Your task to perform on an android device: turn on translation in the chrome app Image 0: 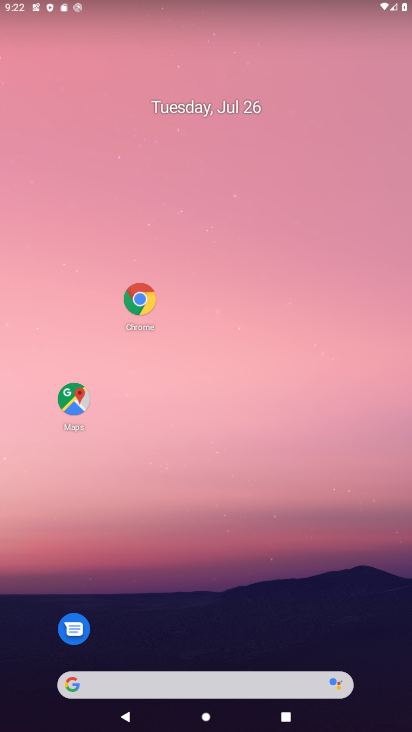
Step 0: click (149, 200)
Your task to perform on an android device: turn on translation in the chrome app Image 1: 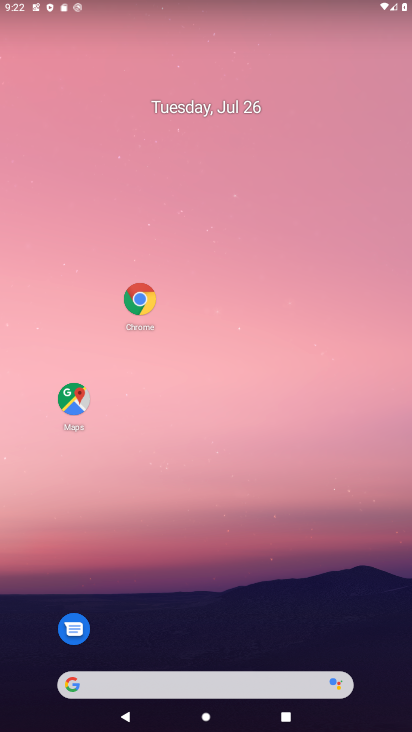
Step 1: click (176, 219)
Your task to perform on an android device: turn on translation in the chrome app Image 2: 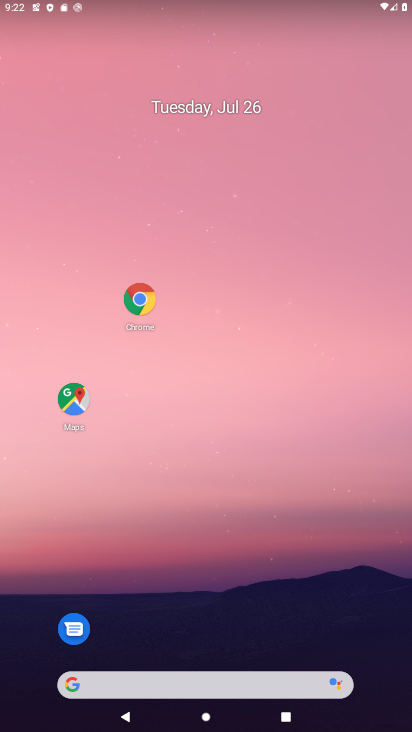
Step 2: drag from (182, 400) to (121, 44)
Your task to perform on an android device: turn on translation in the chrome app Image 3: 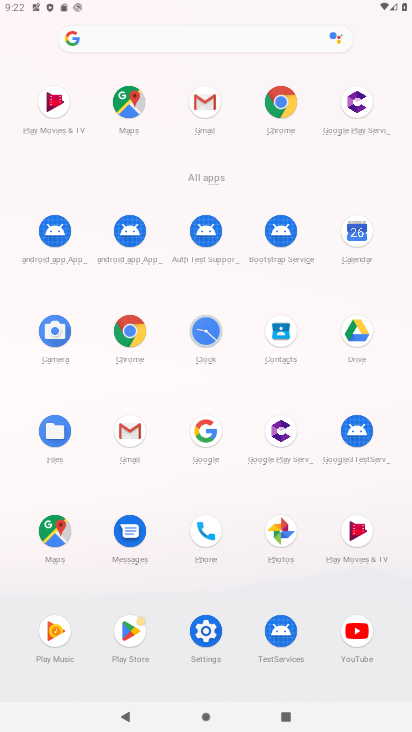
Step 3: click (284, 107)
Your task to perform on an android device: turn on translation in the chrome app Image 4: 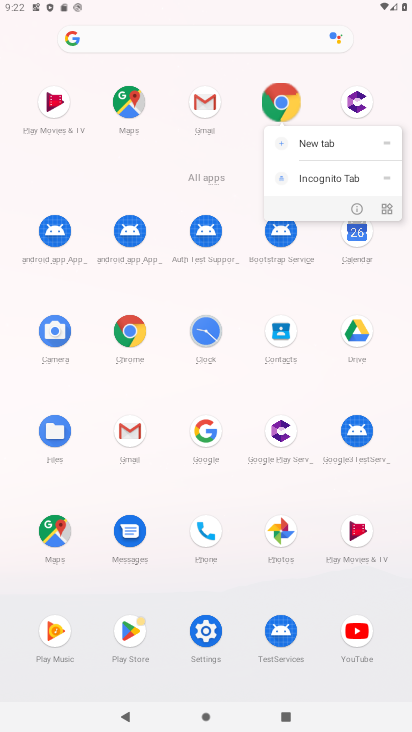
Step 4: click (284, 107)
Your task to perform on an android device: turn on translation in the chrome app Image 5: 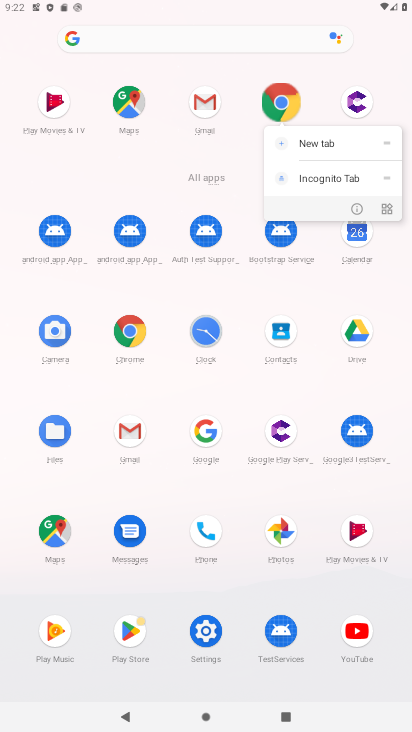
Step 5: click (284, 106)
Your task to perform on an android device: turn on translation in the chrome app Image 6: 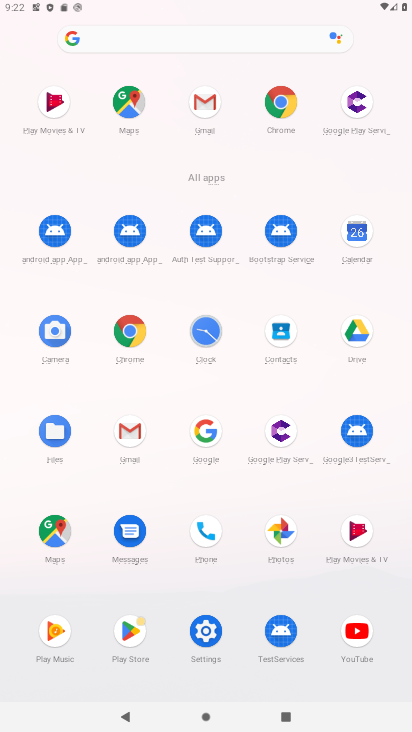
Step 6: click (288, 102)
Your task to perform on an android device: turn on translation in the chrome app Image 7: 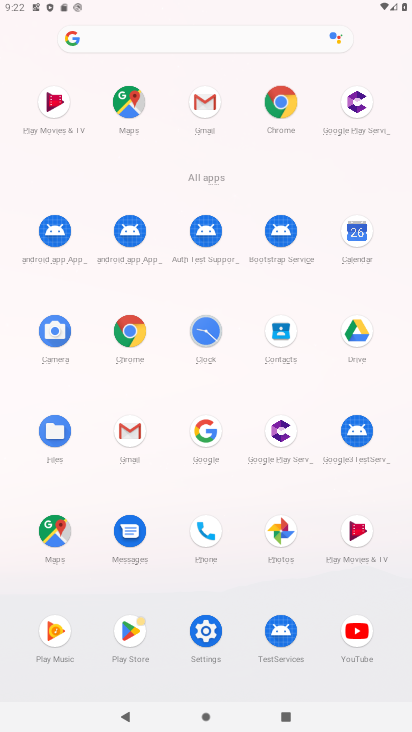
Step 7: click (286, 109)
Your task to perform on an android device: turn on translation in the chrome app Image 8: 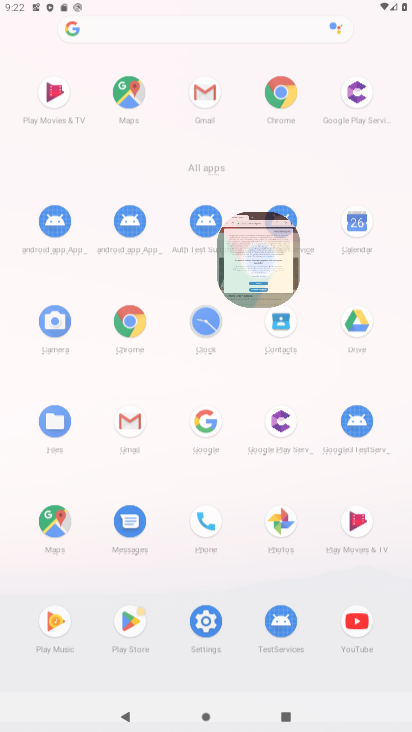
Step 8: click (286, 109)
Your task to perform on an android device: turn on translation in the chrome app Image 9: 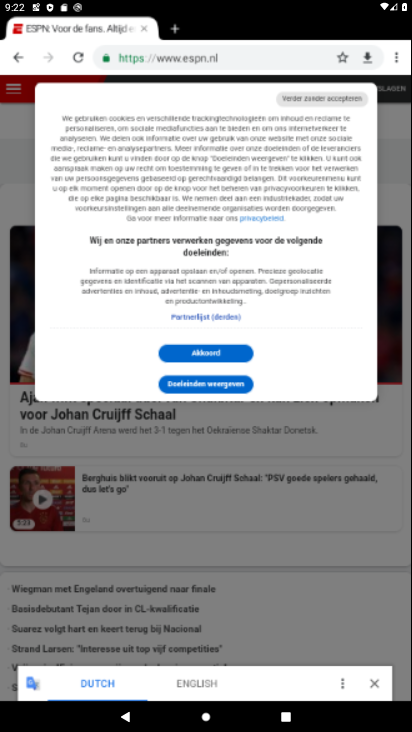
Step 9: click (288, 108)
Your task to perform on an android device: turn on translation in the chrome app Image 10: 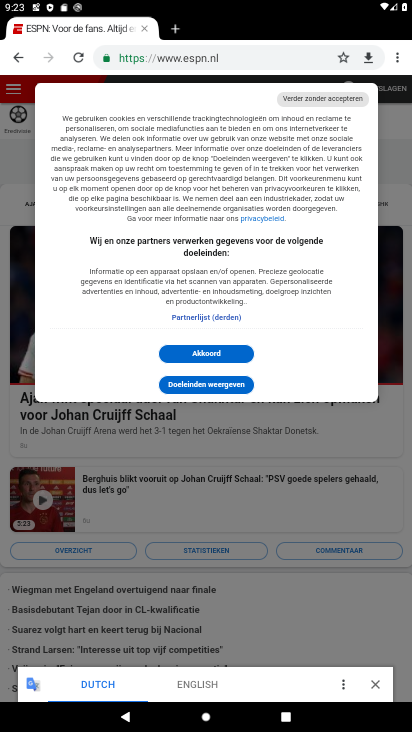
Step 10: click (249, 555)
Your task to perform on an android device: turn on translation in the chrome app Image 11: 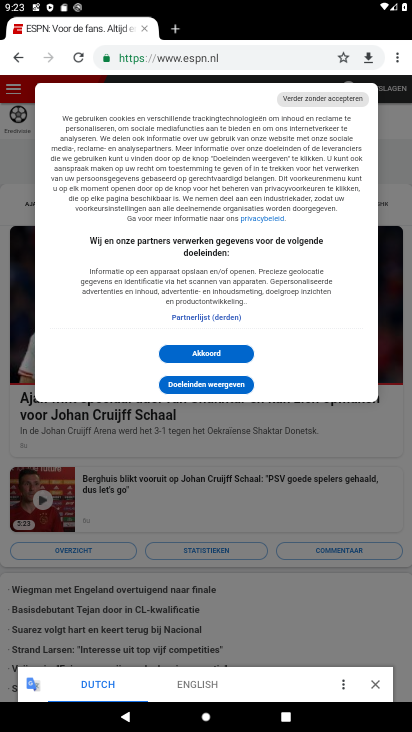
Step 11: click (246, 523)
Your task to perform on an android device: turn on translation in the chrome app Image 12: 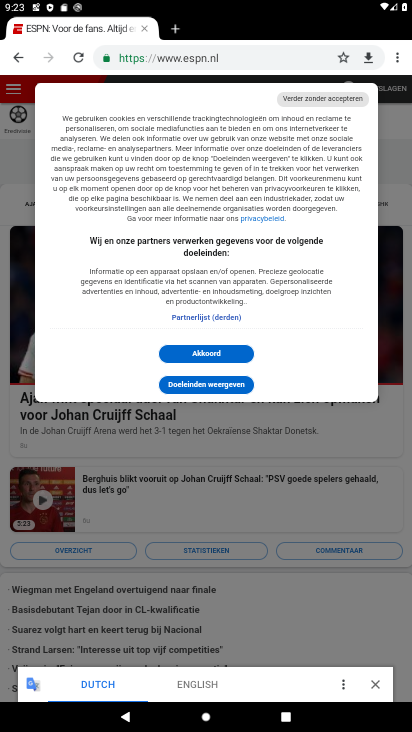
Step 12: click (250, 465)
Your task to perform on an android device: turn on translation in the chrome app Image 13: 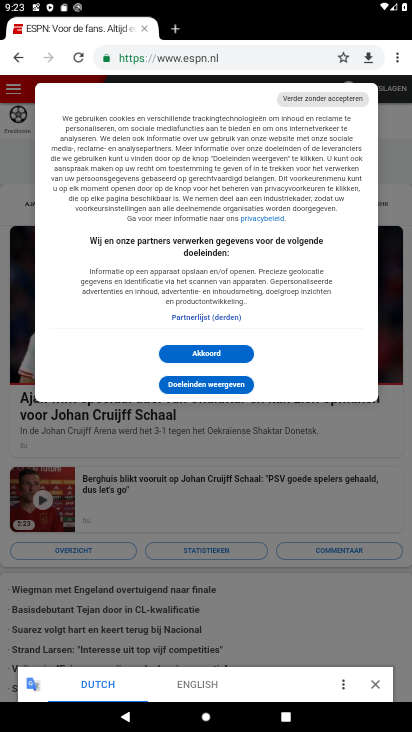
Step 13: click (24, 371)
Your task to perform on an android device: turn on translation in the chrome app Image 14: 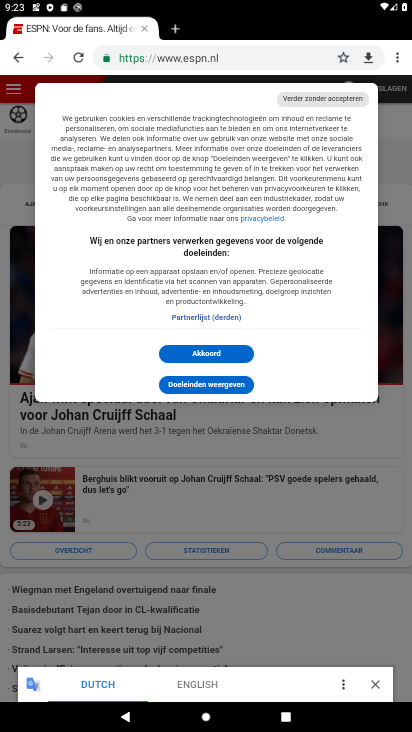
Step 14: click (29, 345)
Your task to perform on an android device: turn on translation in the chrome app Image 15: 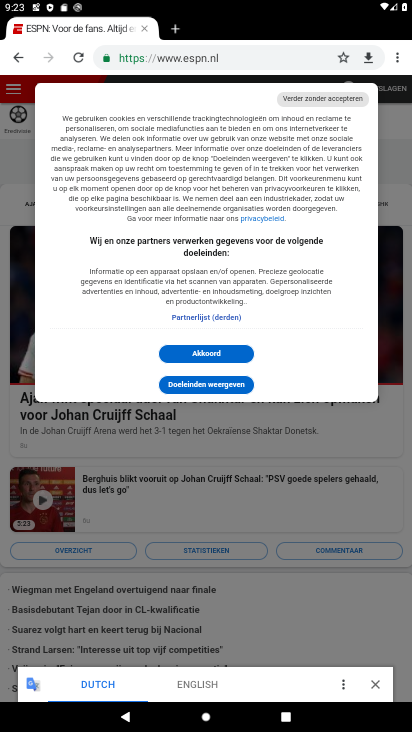
Step 15: click (20, 249)
Your task to perform on an android device: turn on translation in the chrome app Image 16: 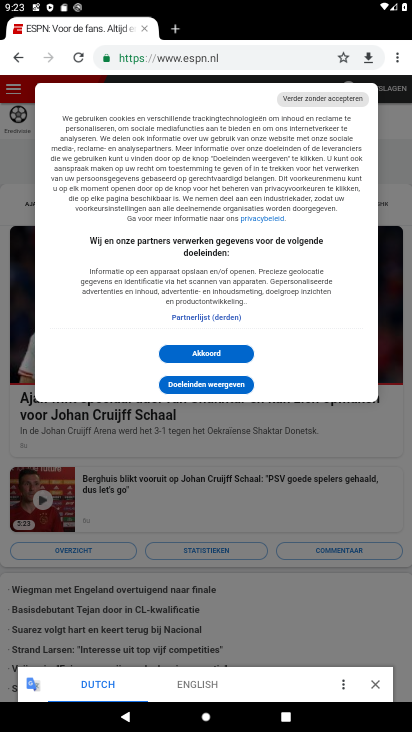
Step 16: click (27, 109)
Your task to perform on an android device: turn on translation in the chrome app Image 17: 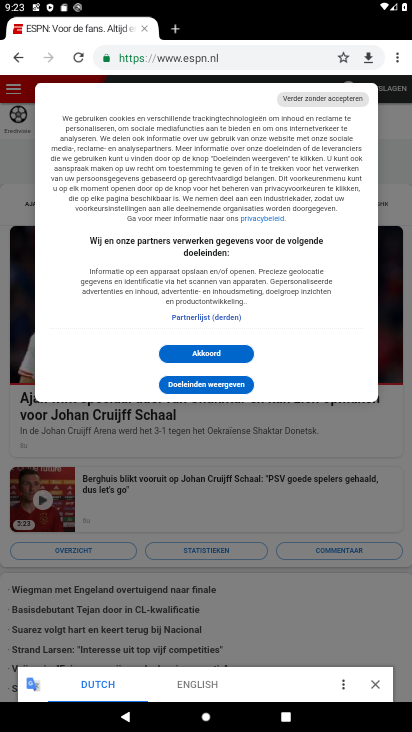
Step 17: press back button
Your task to perform on an android device: turn on translation in the chrome app Image 18: 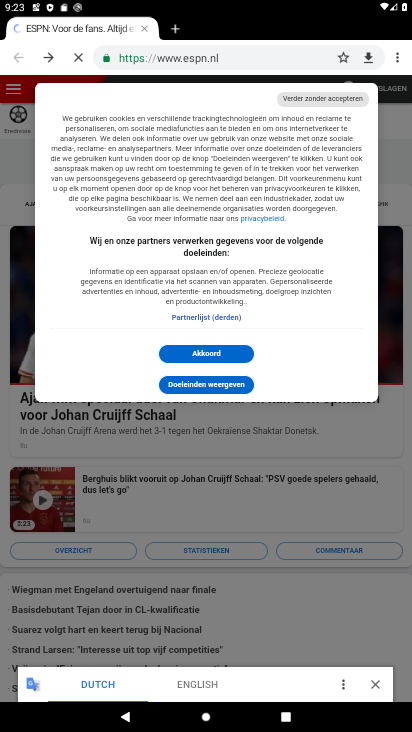
Step 18: press back button
Your task to perform on an android device: turn on translation in the chrome app Image 19: 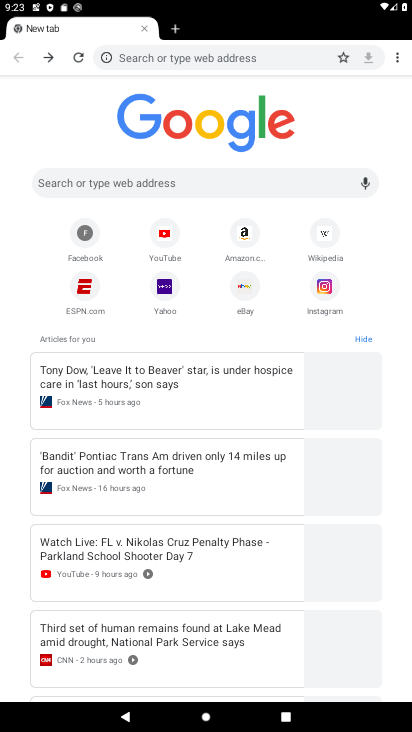
Step 19: press back button
Your task to perform on an android device: turn on translation in the chrome app Image 20: 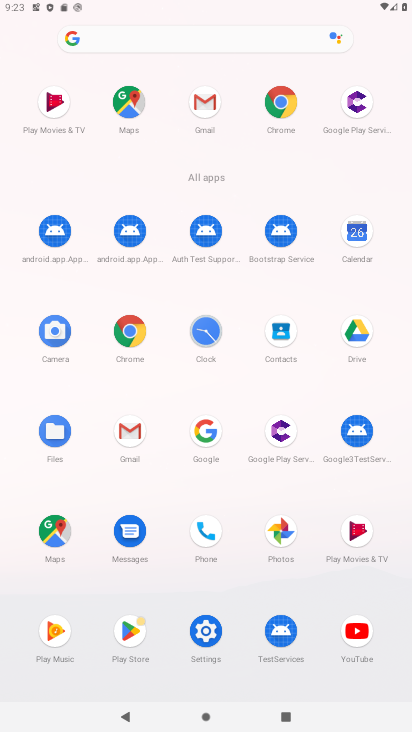
Step 20: drag from (353, 251) to (360, 476)
Your task to perform on an android device: turn on translation in the chrome app Image 21: 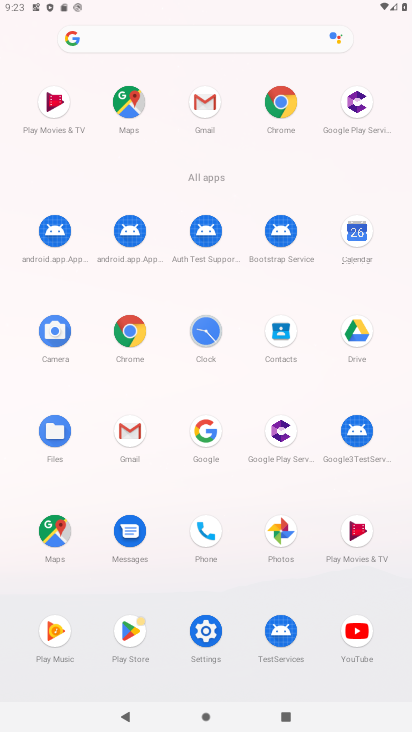
Step 21: click (278, 102)
Your task to perform on an android device: turn on translation in the chrome app Image 22: 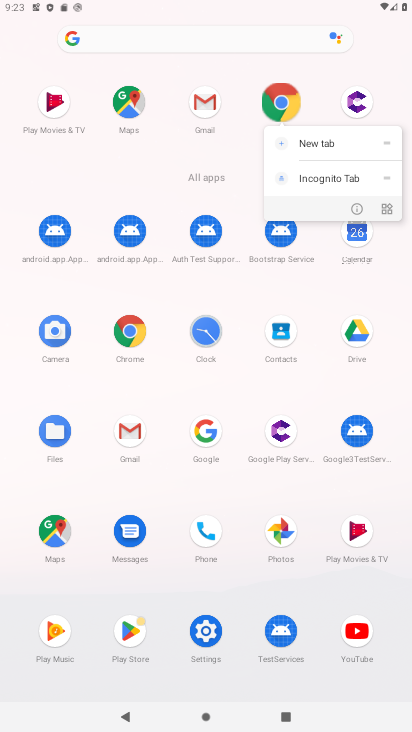
Step 22: click (280, 108)
Your task to perform on an android device: turn on translation in the chrome app Image 23: 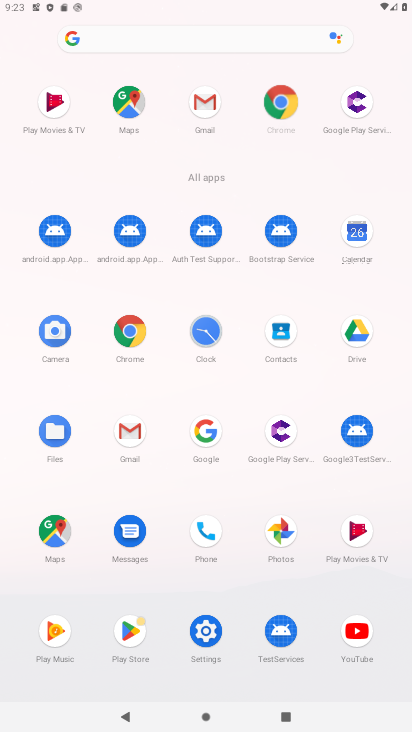
Step 23: click (286, 110)
Your task to perform on an android device: turn on translation in the chrome app Image 24: 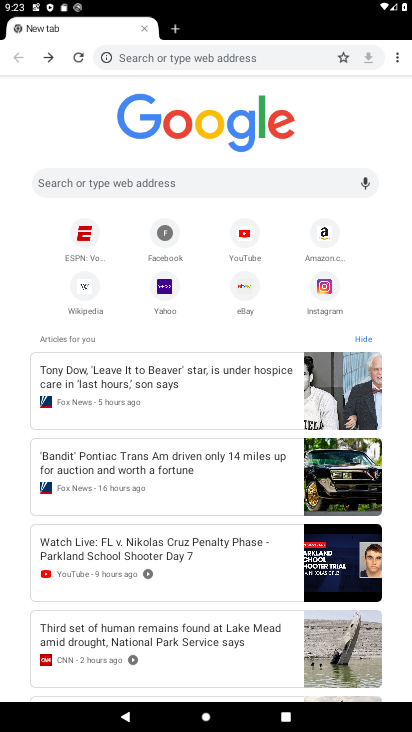
Step 24: drag from (397, 56) to (262, 264)
Your task to perform on an android device: turn on translation in the chrome app Image 25: 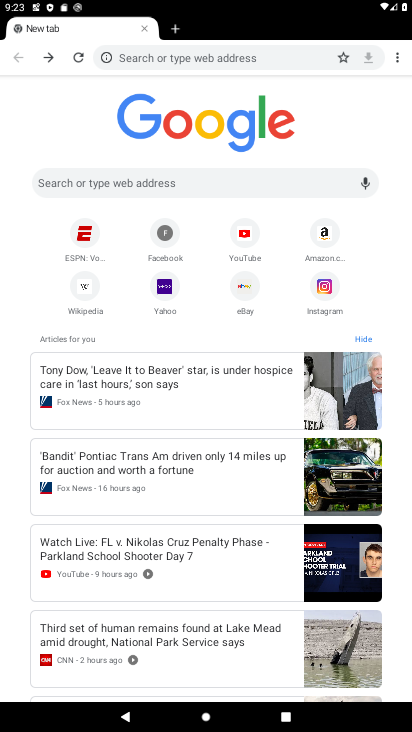
Step 25: click (262, 261)
Your task to perform on an android device: turn on translation in the chrome app Image 26: 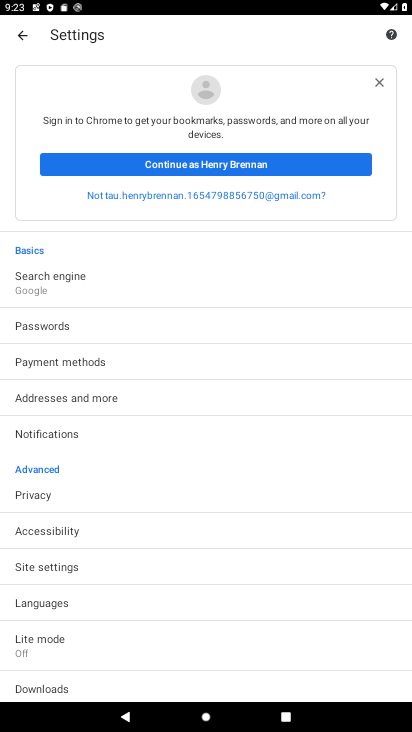
Step 26: drag from (100, 518) to (88, 138)
Your task to perform on an android device: turn on translation in the chrome app Image 27: 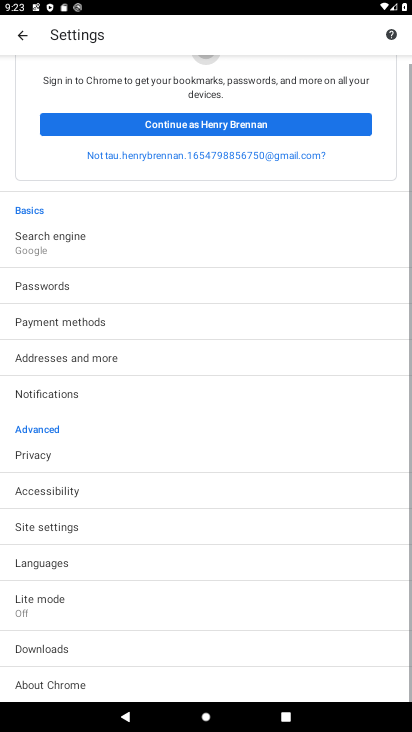
Step 27: drag from (133, 435) to (98, 145)
Your task to perform on an android device: turn on translation in the chrome app Image 28: 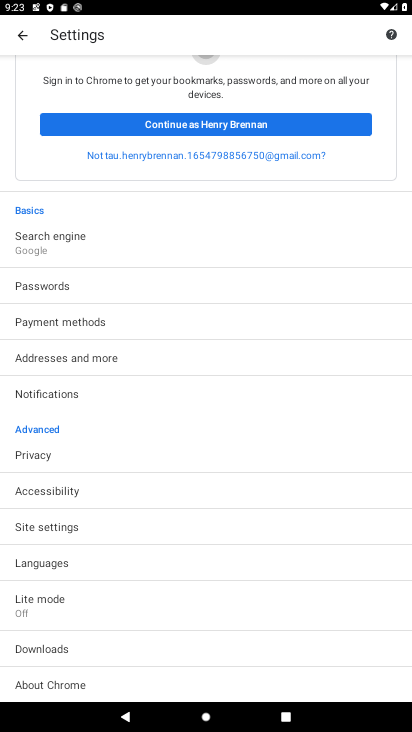
Step 28: click (53, 561)
Your task to perform on an android device: turn on translation in the chrome app Image 29: 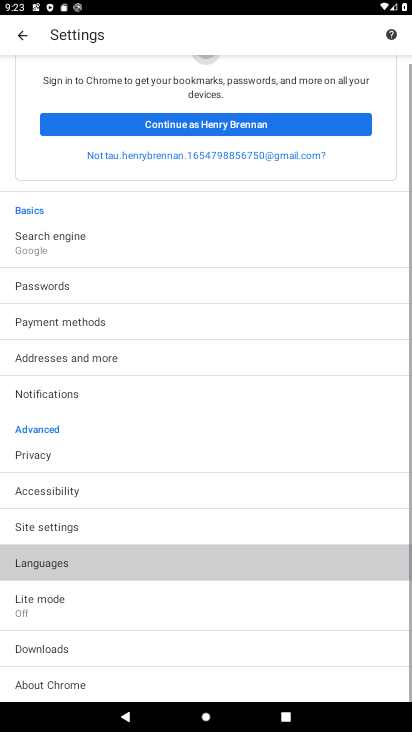
Step 29: click (55, 560)
Your task to perform on an android device: turn on translation in the chrome app Image 30: 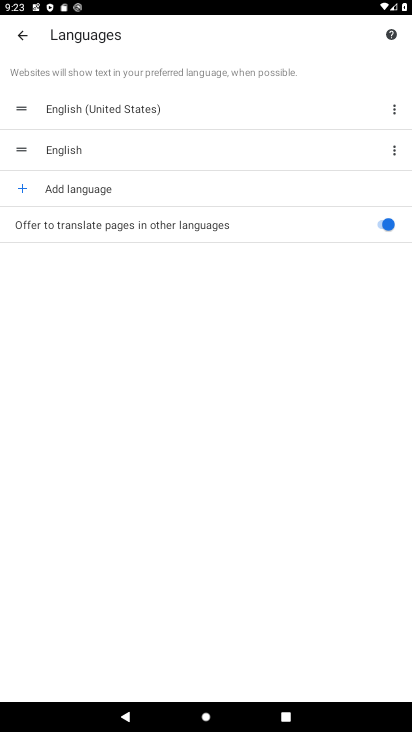
Step 30: task complete